Your task to perform on an android device: Open maps Image 0: 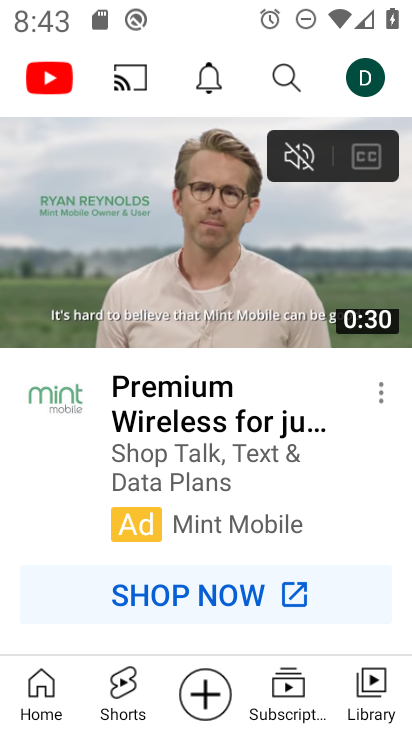
Step 0: press home button
Your task to perform on an android device: Open maps Image 1: 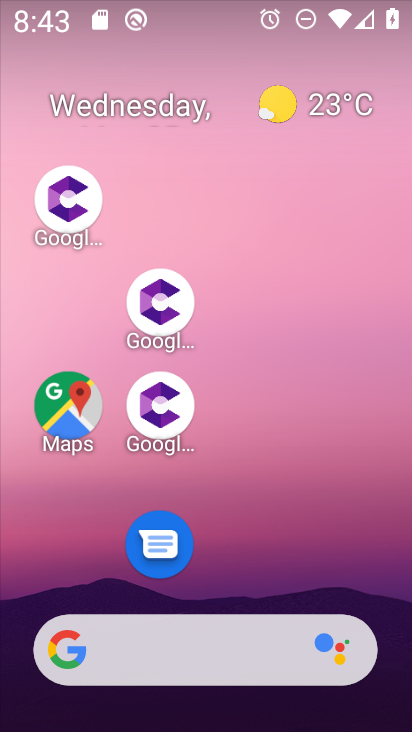
Step 1: click (63, 399)
Your task to perform on an android device: Open maps Image 2: 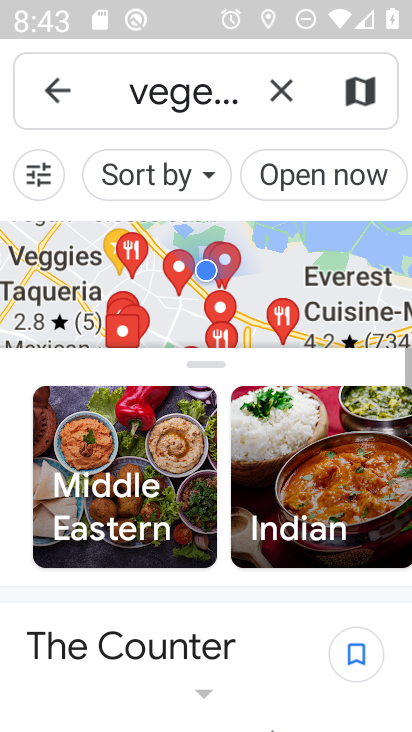
Step 2: click (283, 89)
Your task to perform on an android device: Open maps Image 3: 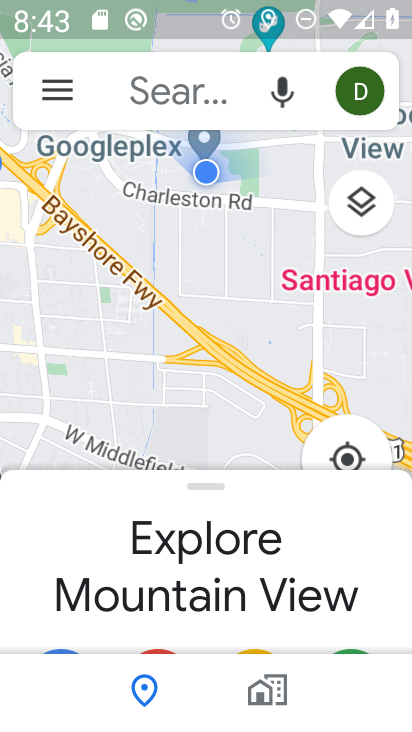
Step 3: task complete